Your task to perform on an android device: turn off notifications settings in the gmail app Image 0: 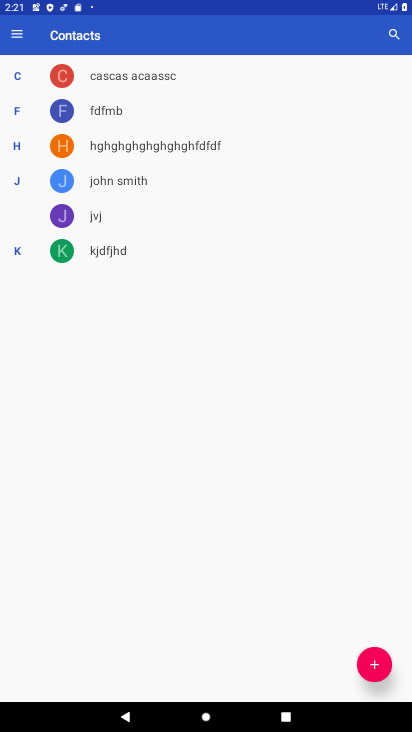
Step 0: press home button
Your task to perform on an android device: turn off notifications settings in the gmail app Image 1: 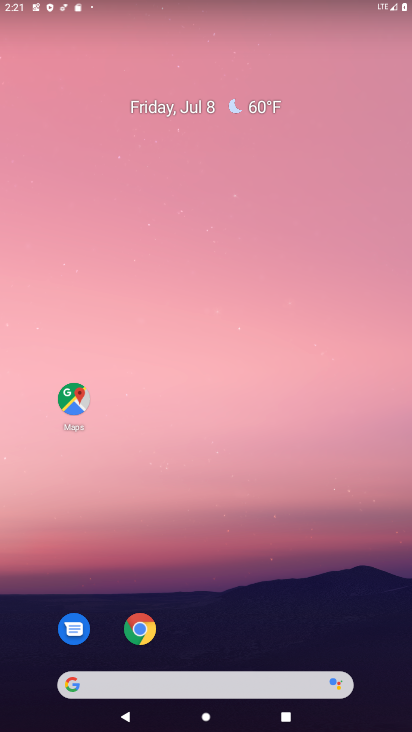
Step 1: drag from (209, 629) to (215, 190)
Your task to perform on an android device: turn off notifications settings in the gmail app Image 2: 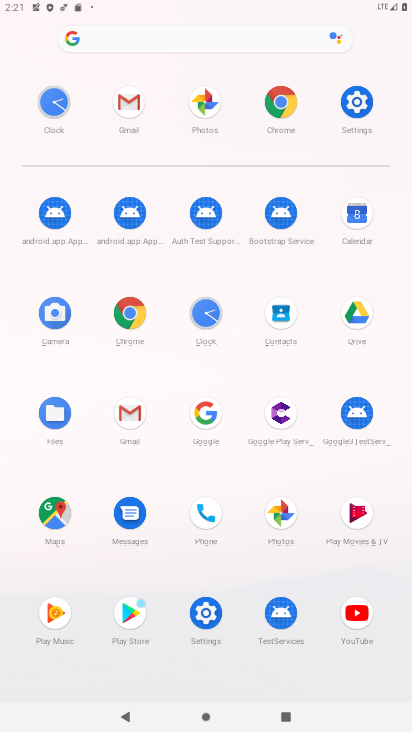
Step 2: click (128, 108)
Your task to perform on an android device: turn off notifications settings in the gmail app Image 3: 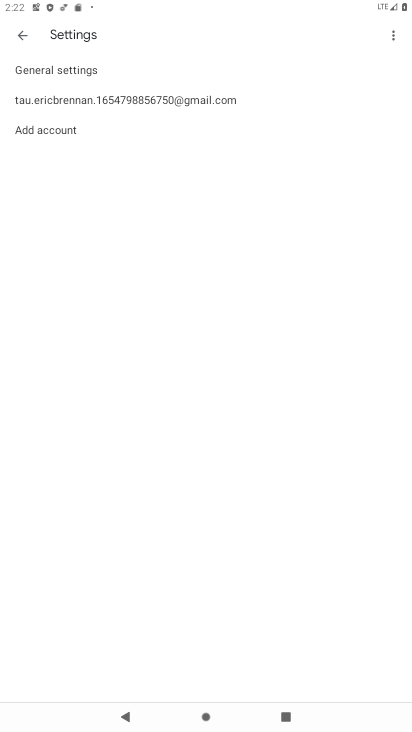
Step 3: click (90, 102)
Your task to perform on an android device: turn off notifications settings in the gmail app Image 4: 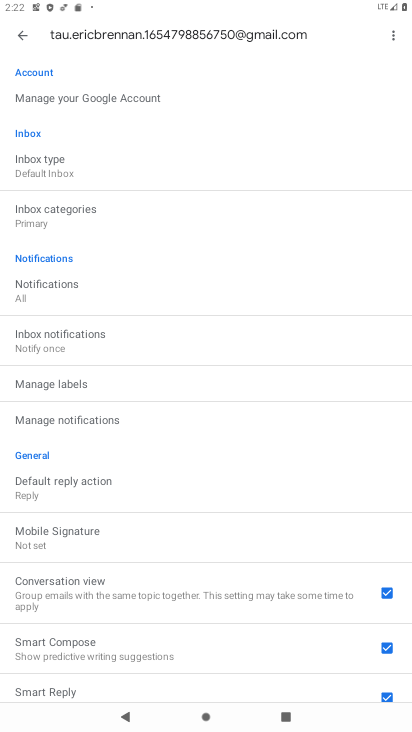
Step 4: click (111, 424)
Your task to perform on an android device: turn off notifications settings in the gmail app Image 5: 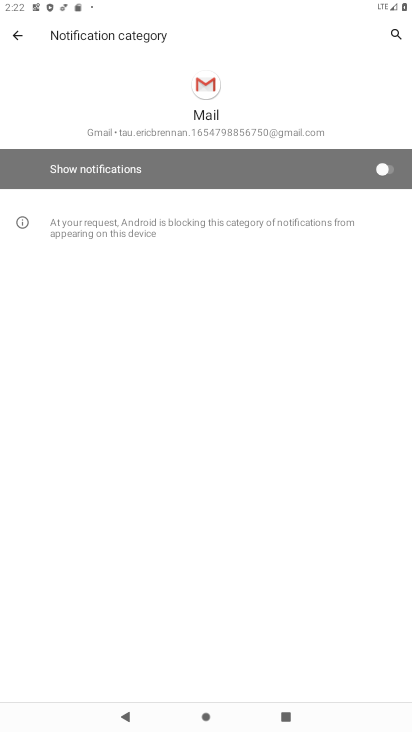
Step 5: task complete